Your task to perform on an android device: Go to sound settings Image 0: 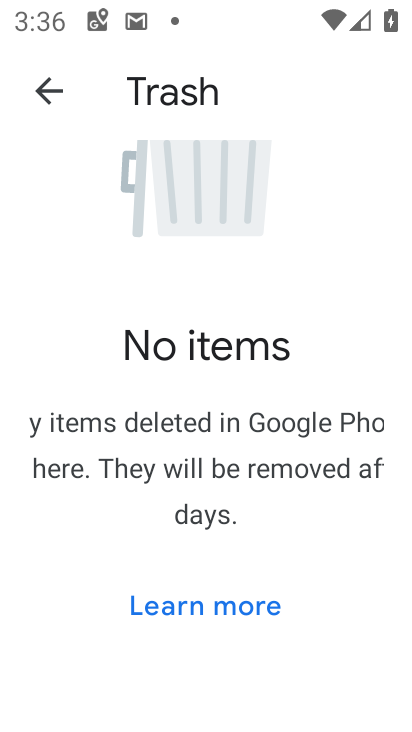
Step 0: press home button
Your task to perform on an android device: Go to sound settings Image 1: 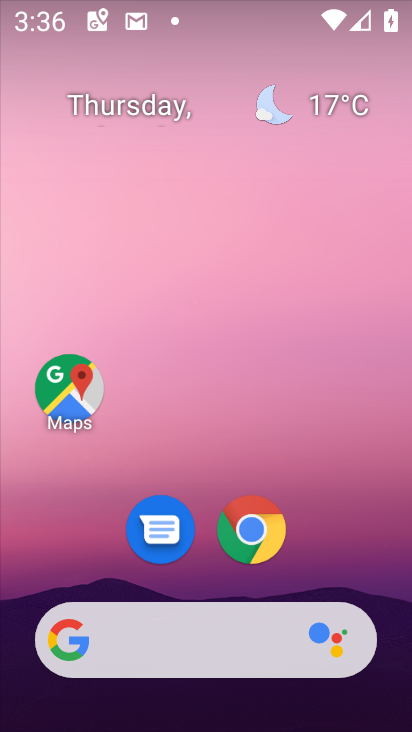
Step 1: drag from (285, 602) to (153, 226)
Your task to perform on an android device: Go to sound settings Image 2: 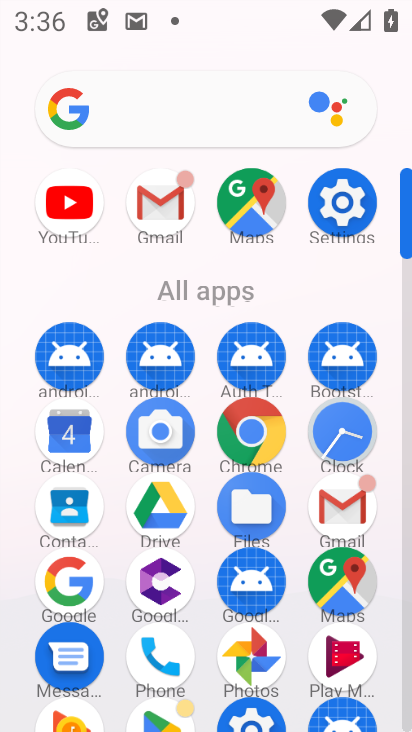
Step 2: click (338, 205)
Your task to perform on an android device: Go to sound settings Image 3: 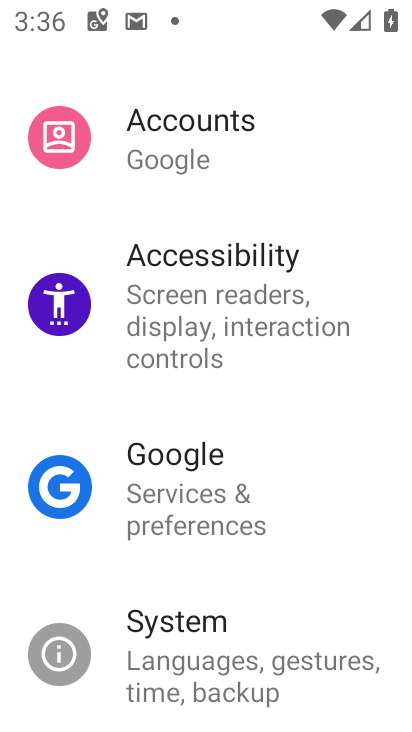
Step 3: drag from (174, 616) to (128, 262)
Your task to perform on an android device: Go to sound settings Image 4: 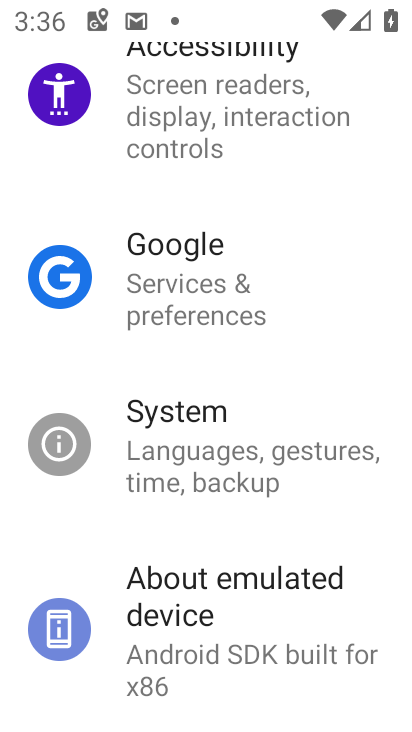
Step 4: drag from (177, 674) to (170, 275)
Your task to perform on an android device: Go to sound settings Image 5: 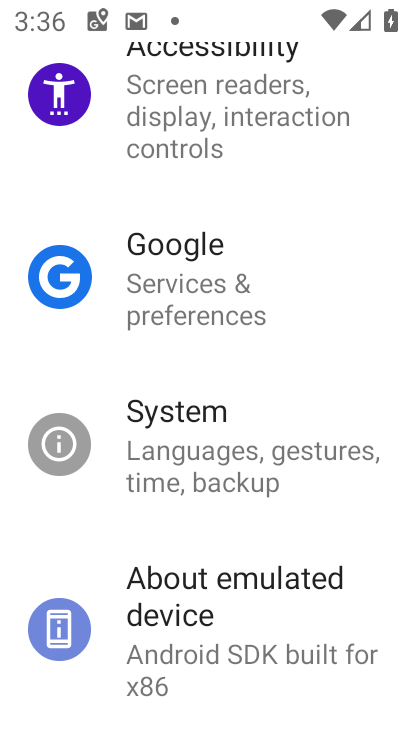
Step 5: drag from (177, 131) to (247, 633)
Your task to perform on an android device: Go to sound settings Image 6: 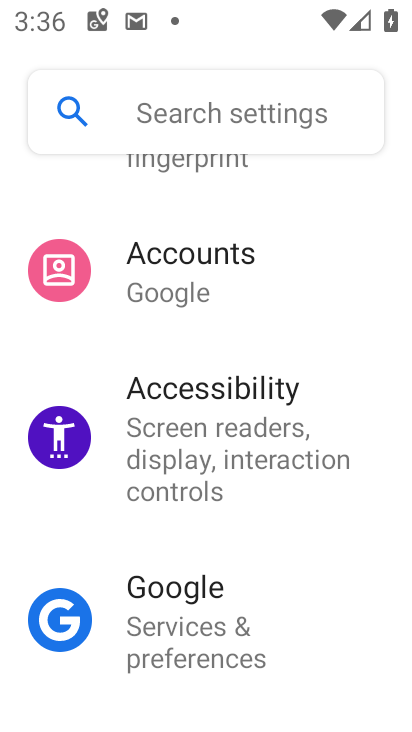
Step 6: drag from (199, 228) to (255, 701)
Your task to perform on an android device: Go to sound settings Image 7: 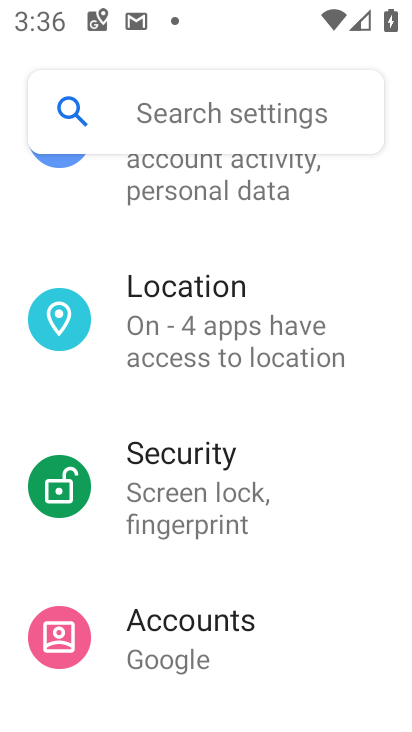
Step 7: drag from (167, 254) to (212, 701)
Your task to perform on an android device: Go to sound settings Image 8: 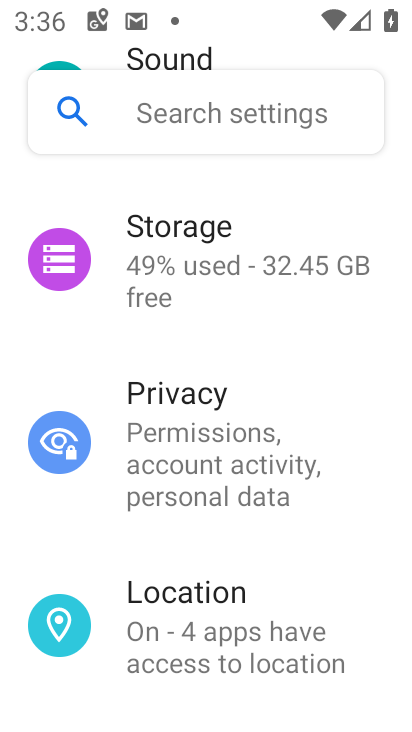
Step 8: drag from (170, 266) to (203, 633)
Your task to perform on an android device: Go to sound settings Image 9: 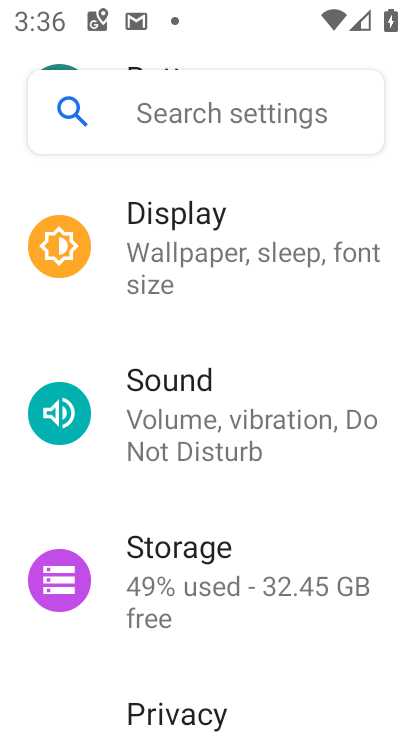
Step 9: click (143, 422)
Your task to perform on an android device: Go to sound settings Image 10: 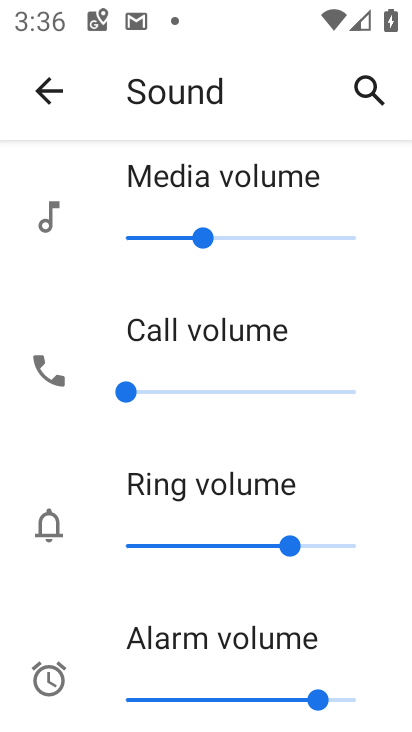
Step 10: task complete